Your task to perform on an android device: turn off notifications in google photos Image 0: 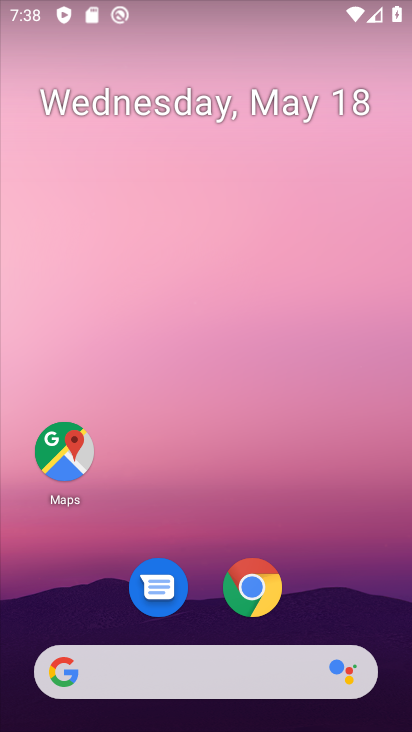
Step 0: drag from (202, 619) to (140, 39)
Your task to perform on an android device: turn off notifications in google photos Image 1: 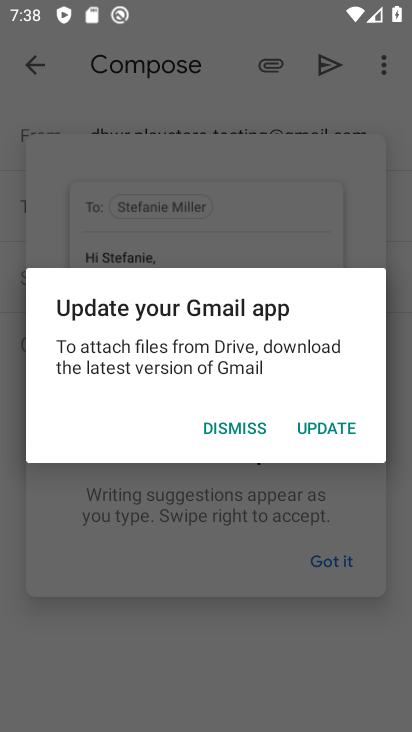
Step 1: press home button
Your task to perform on an android device: turn off notifications in google photos Image 2: 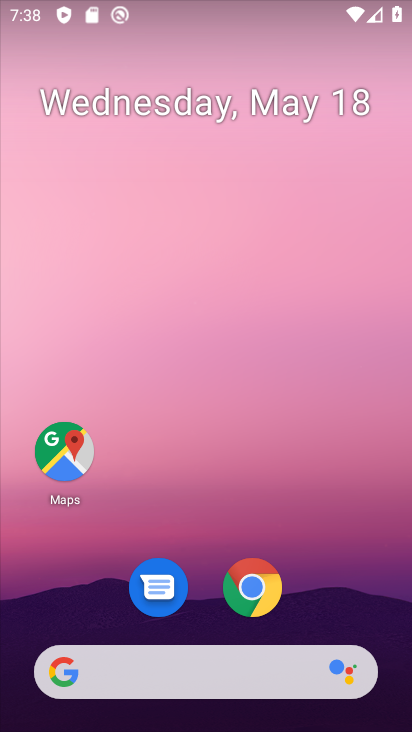
Step 2: drag from (202, 621) to (197, 0)
Your task to perform on an android device: turn off notifications in google photos Image 3: 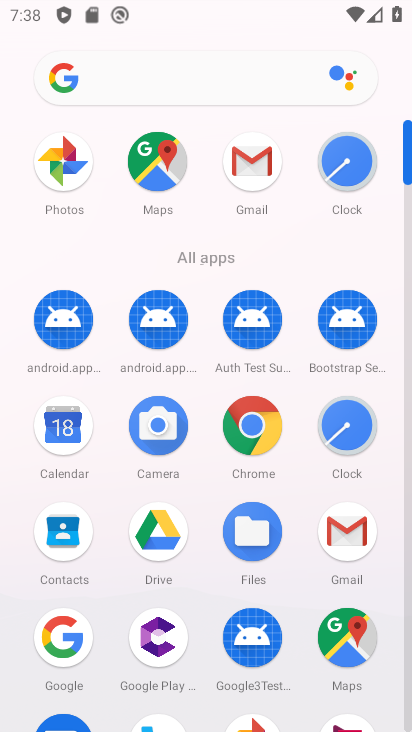
Step 3: drag from (197, 706) to (221, 202)
Your task to perform on an android device: turn off notifications in google photos Image 4: 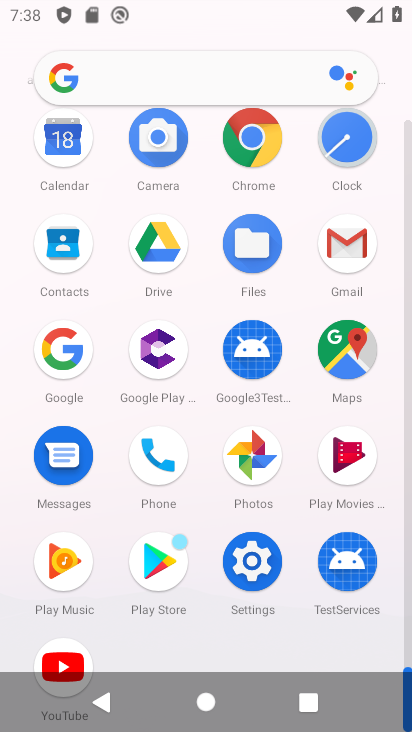
Step 4: click (265, 577)
Your task to perform on an android device: turn off notifications in google photos Image 5: 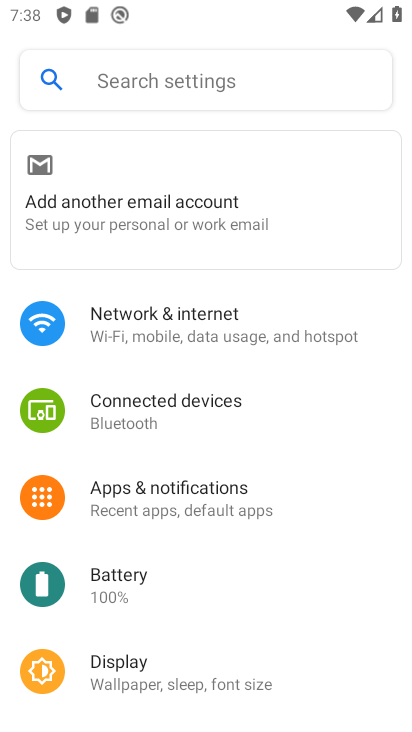
Step 5: click (94, 493)
Your task to perform on an android device: turn off notifications in google photos Image 6: 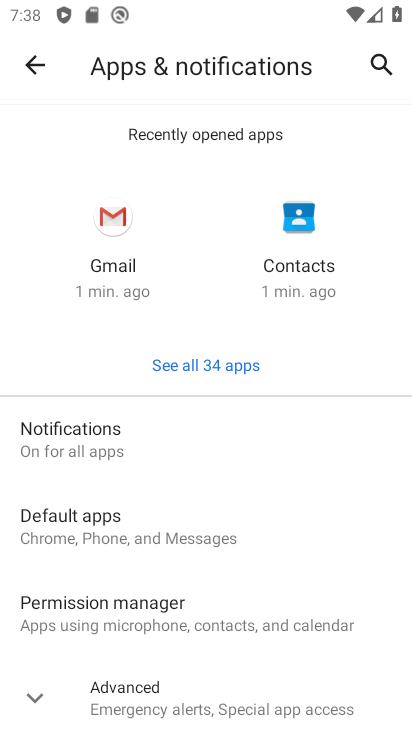
Step 6: click (218, 366)
Your task to perform on an android device: turn off notifications in google photos Image 7: 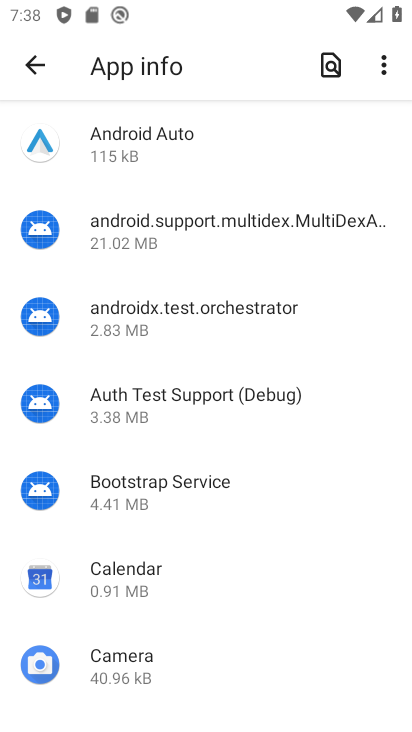
Step 7: drag from (176, 677) to (209, 152)
Your task to perform on an android device: turn off notifications in google photos Image 8: 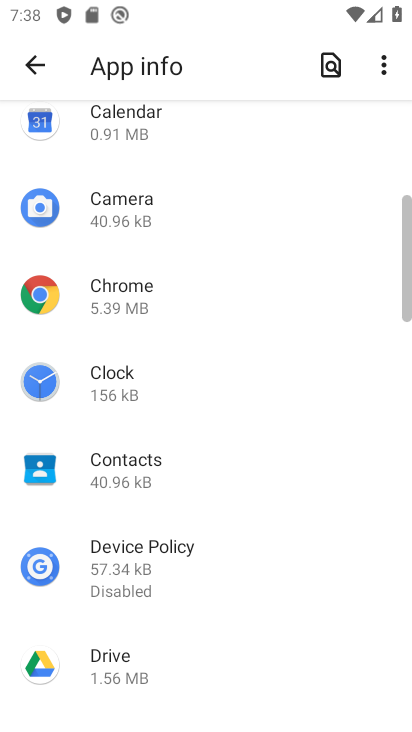
Step 8: drag from (158, 614) to (168, 155)
Your task to perform on an android device: turn off notifications in google photos Image 9: 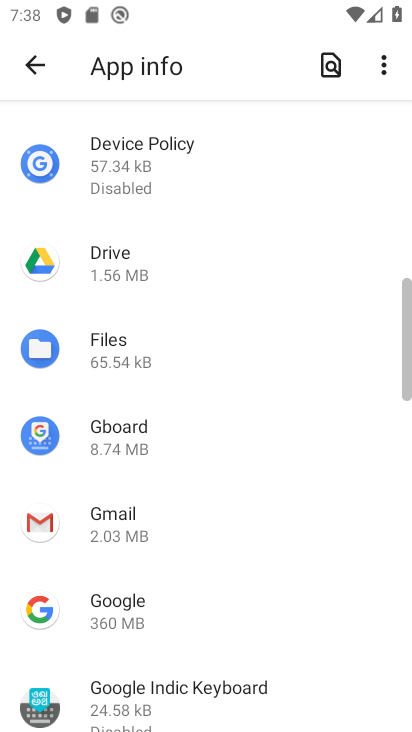
Step 9: drag from (92, 676) to (162, 122)
Your task to perform on an android device: turn off notifications in google photos Image 10: 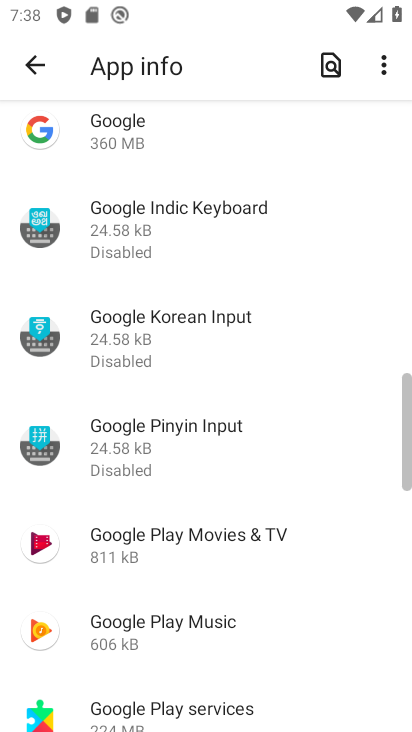
Step 10: drag from (86, 708) to (135, 140)
Your task to perform on an android device: turn off notifications in google photos Image 11: 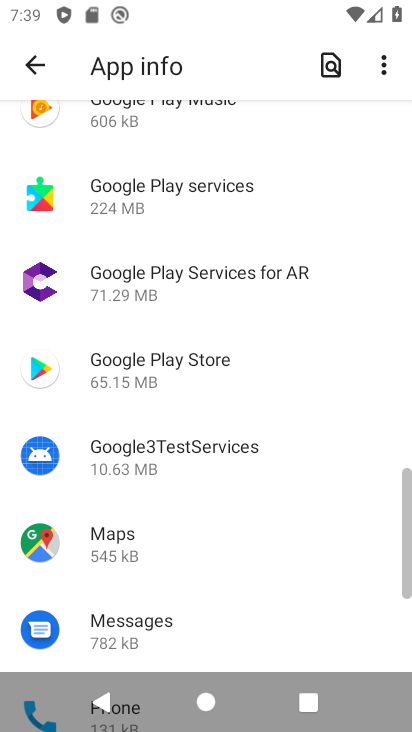
Step 11: drag from (65, 568) to (143, 111)
Your task to perform on an android device: turn off notifications in google photos Image 12: 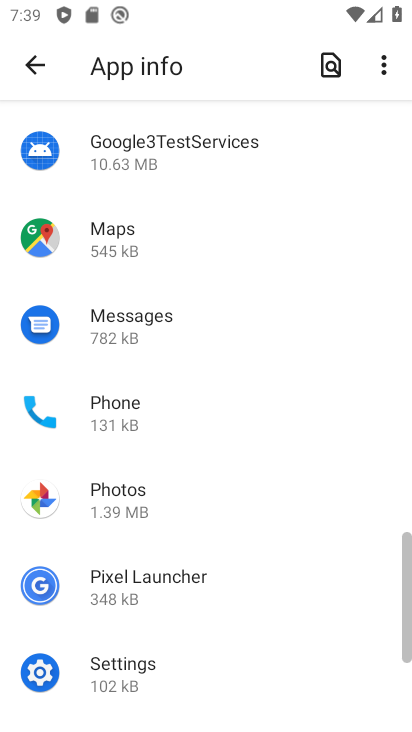
Step 12: click (115, 496)
Your task to perform on an android device: turn off notifications in google photos Image 13: 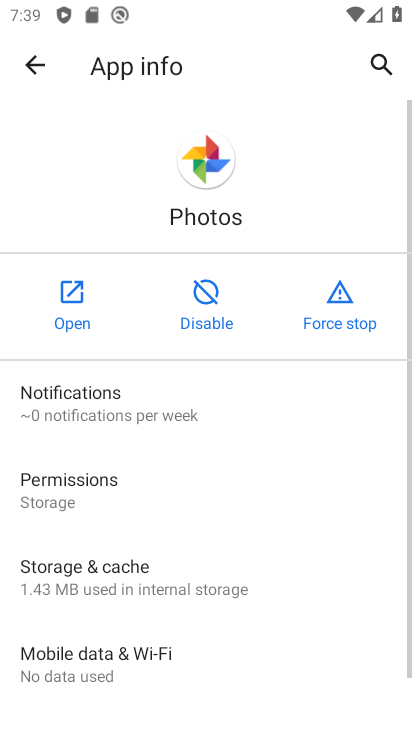
Step 13: click (126, 389)
Your task to perform on an android device: turn off notifications in google photos Image 14: 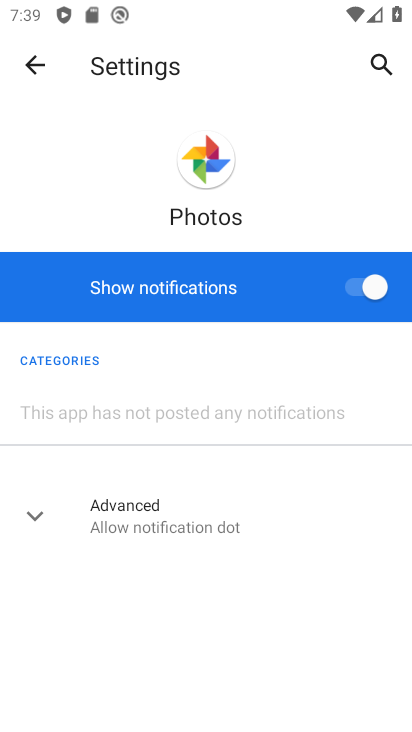
Step 14: click (365, 289)
Your task to perform on an android device: turn off notifications in google photos Image 15: 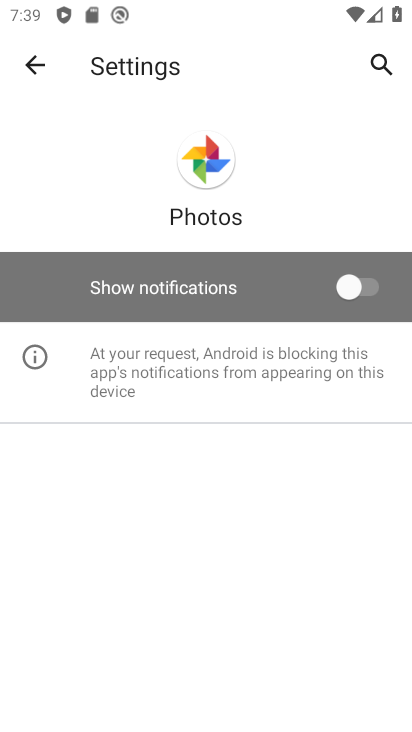
Step 15: task complete